Your task to perform on an android device: Toggle the flashlight Image 0: 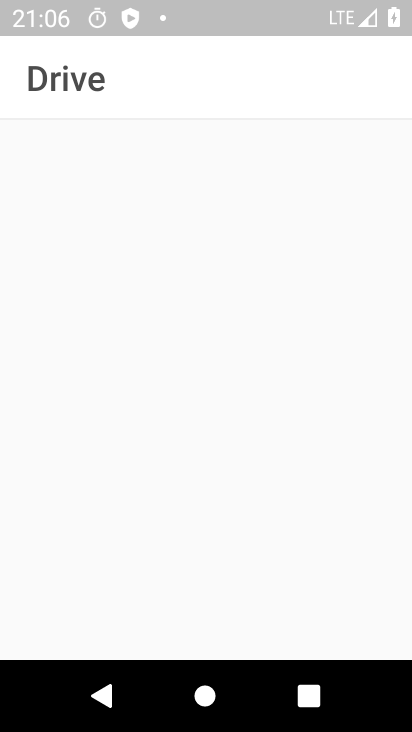
Step 0: press home button
Your task to perform on an android device: Toggle the flashlight Image 1: 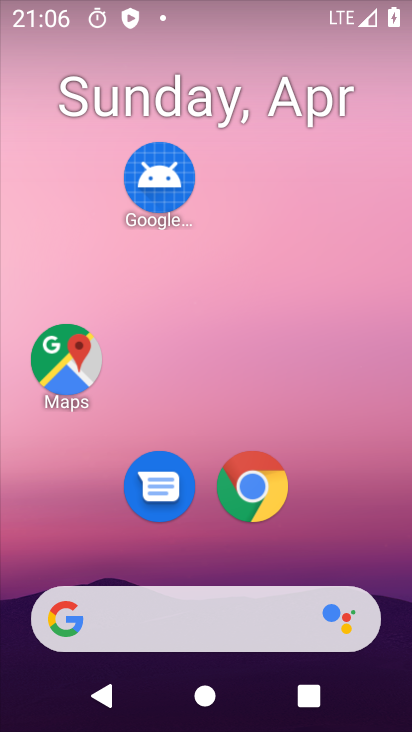
Step 1: drag from (323, 494) to (317, 56)
Your task to perform on an android device: Toggle the flashlight Image 2: 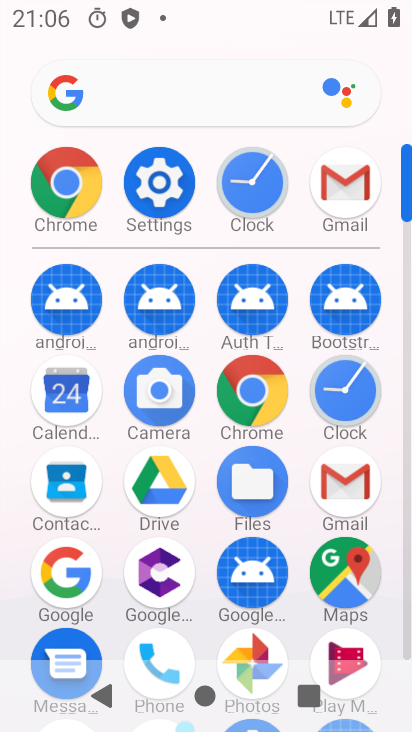
Step 2: click (162, 175)
Your task to perform on an android device: Toggle the flashlight Image 3: 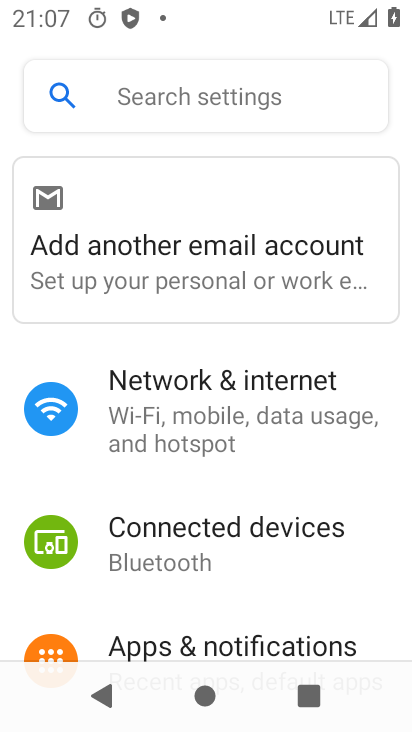
Step 3: click (147, 100)
Your task to perform on an android device: Toggle the flashlight Image 4: 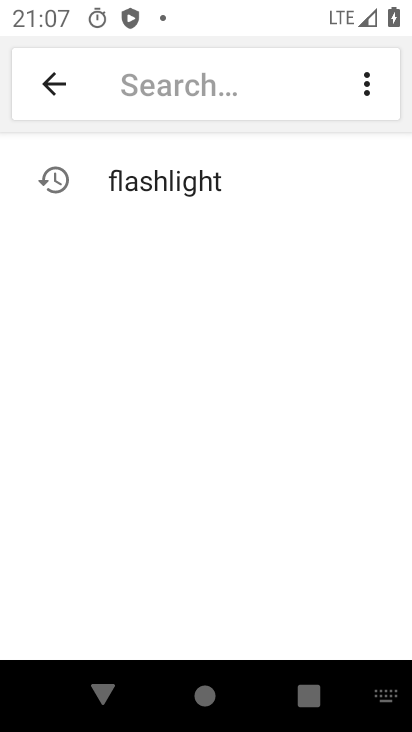
Step 4: click (125, 178)
Your task to perform on an android device: Toggle the flashlight Image 5: 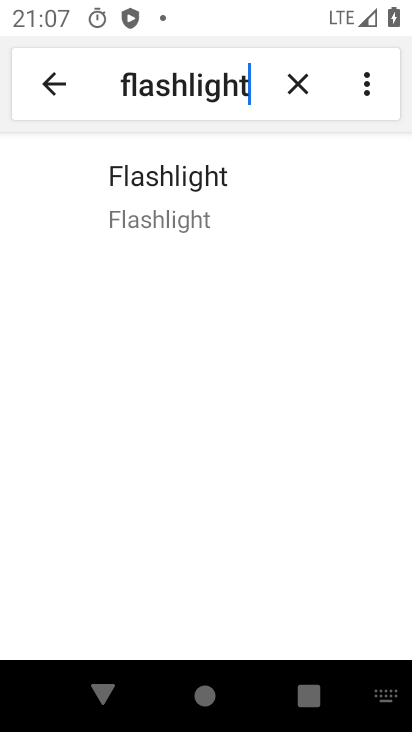
Step 5: click (155, 200)
Your task to perform on an android device: Toggle the flashlight Image 6: 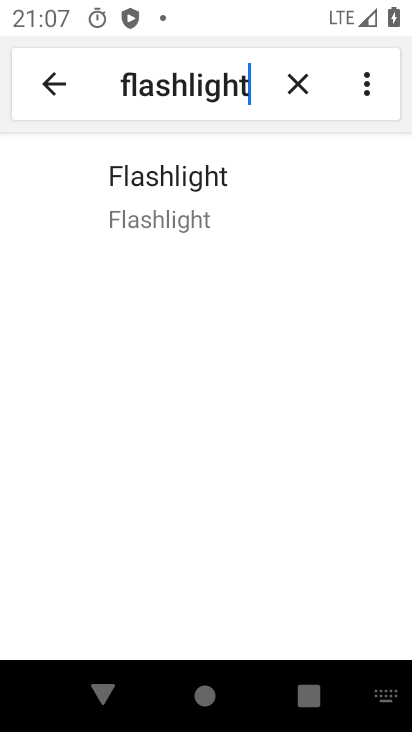
Step 6: task complete